Your task to perform on an android device: Go to Maps Image 0: 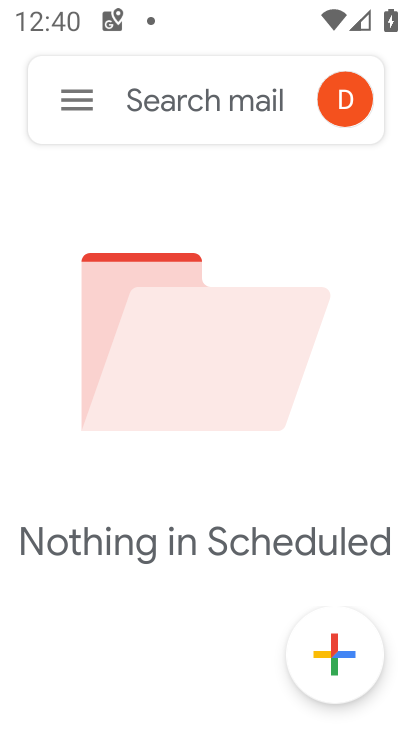
Step 0: press home button
Your task to perform on an android device: Go to Maps Image 1: 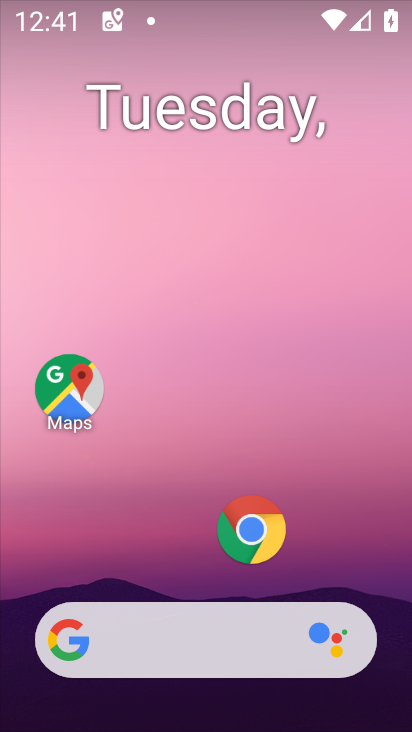
Step 1: click (76, 350)
Your task to perform on an android device: Go to Maps Image 2: 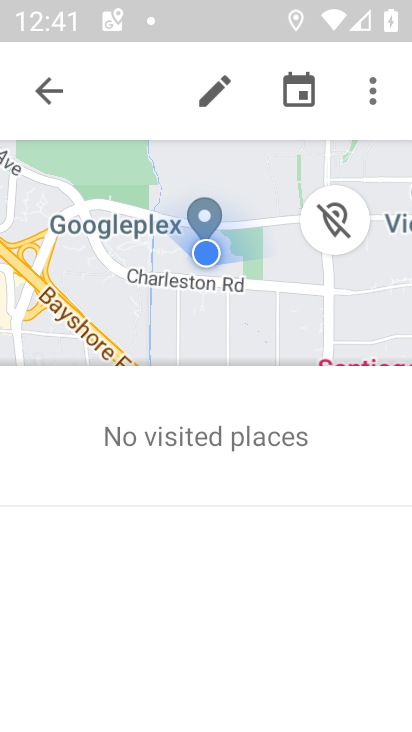
Step 2: click (58, 97)
Your task to perform on an android device: Go to Maps Image 3: 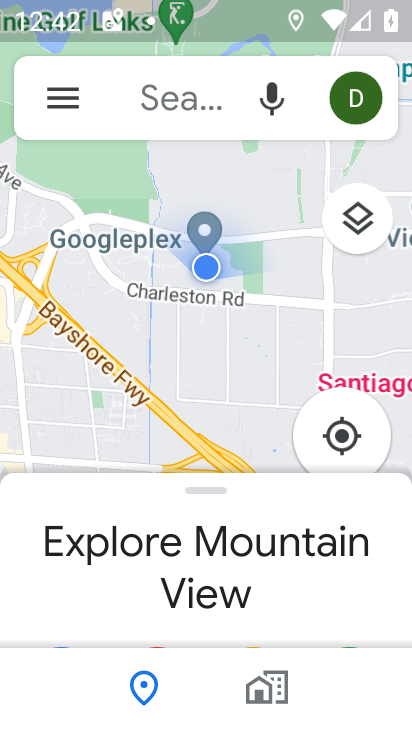
Step 3: task complete